Your task to perform on an android device: open a bookmark in the chrome app Image 0: 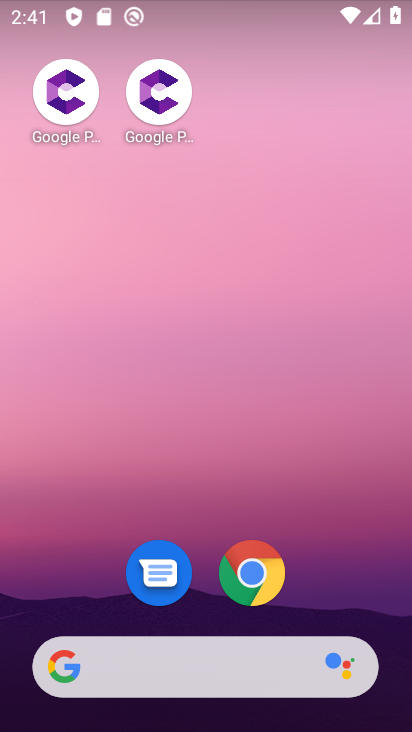
Step 0: click (252, 550)
Your task to perform on an android device: open a bookmark in the chrome app Image 1: 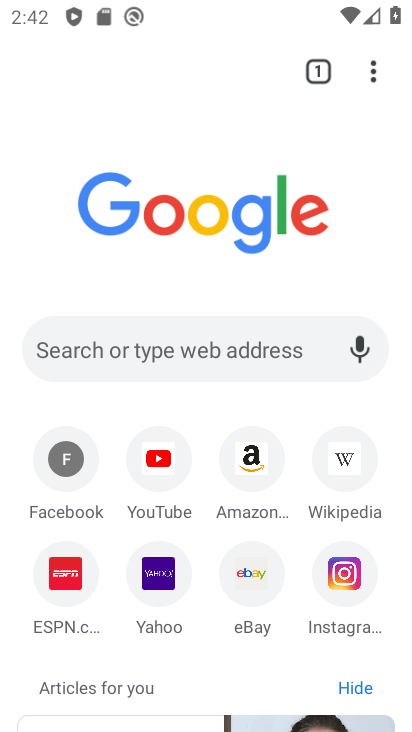
Step 1: click (370, 70)
Your task to perform on an android device: open a bookmark in the chrome app Image 2: 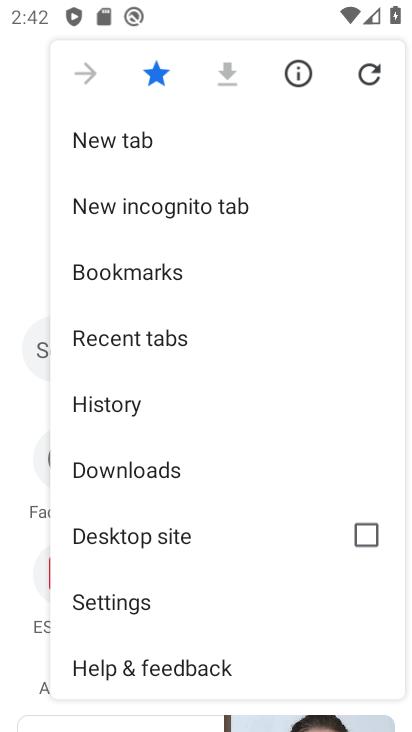
Step 2: click (144, 265)
Your task to perform on an android device: open a bookmark in the chrome app Image 3: 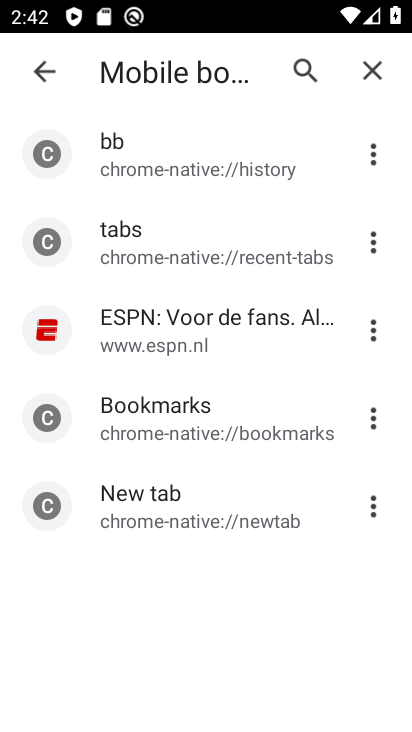
Step 3: task complete